Your task to perform on an android device: Search for macbook on ebay, select the first entry, add it to the cart, then select checkout. Image 0: 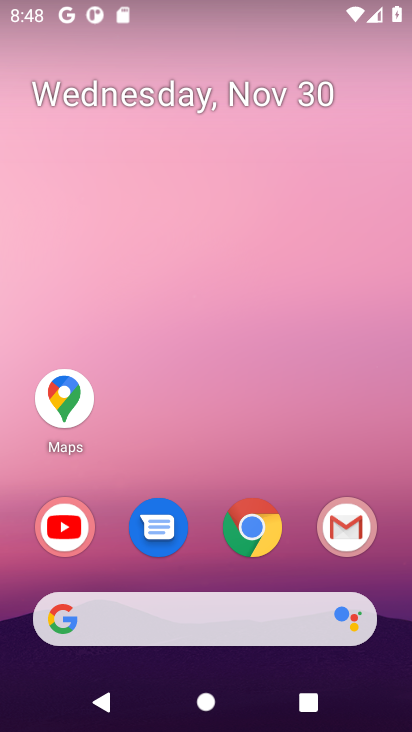
Step 0: click (246, 527)
Your task to perform on an android device: Search for macbook on ebay, select the first entry, add it to the cart, then select checkout. Image 1: 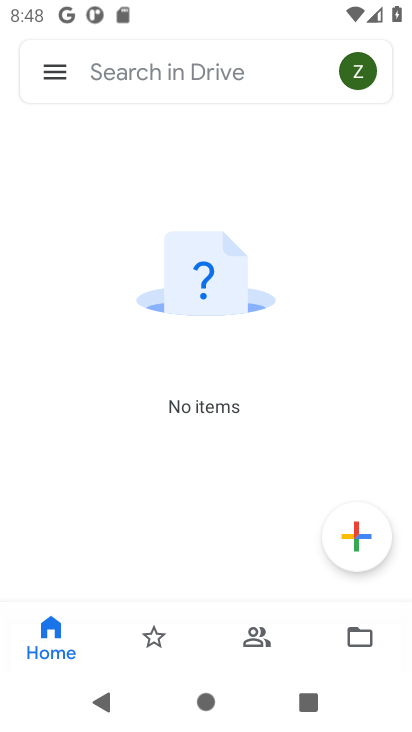
Step 1: press home button
Your task to perform on an android device: Search for macbook on ebay, select the first entry, add it to the cart, then select checkout. Image 2: 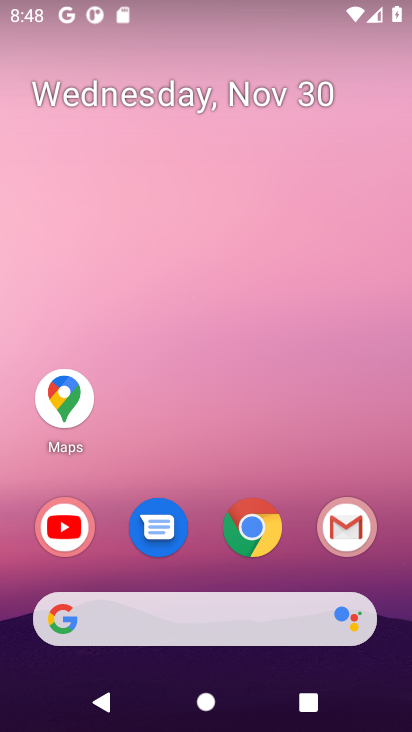
Step 2: click (255, 522)
Your task to perform on an android device: Search for macbook on ebay, select the first entry, add it to the cart, then select checkout. Image 3: 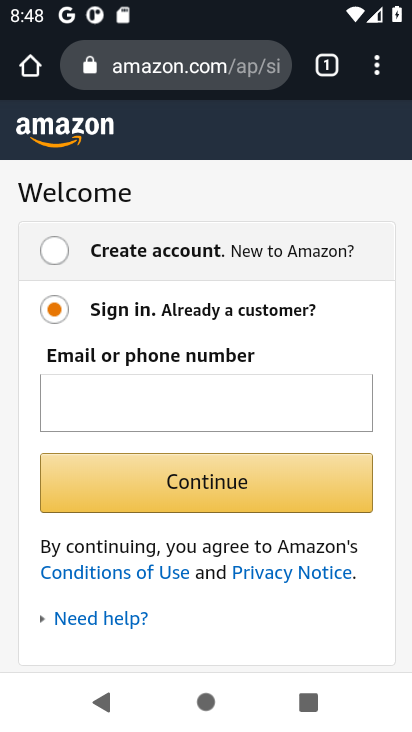
Step 3: click (213, 66)
Your task to perform on an android device: Search for macbook on ebay, select the first entry, add it to the cart, then select checkout. Image 4: 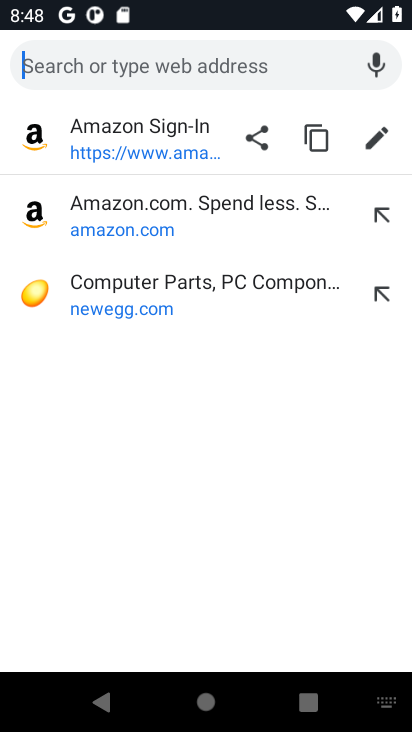
Step 4: type "ebay"
Your task to perform on an android device: Search for macbook on ebay, select the first entry, add it to the cart, then select checkout. Image 5: 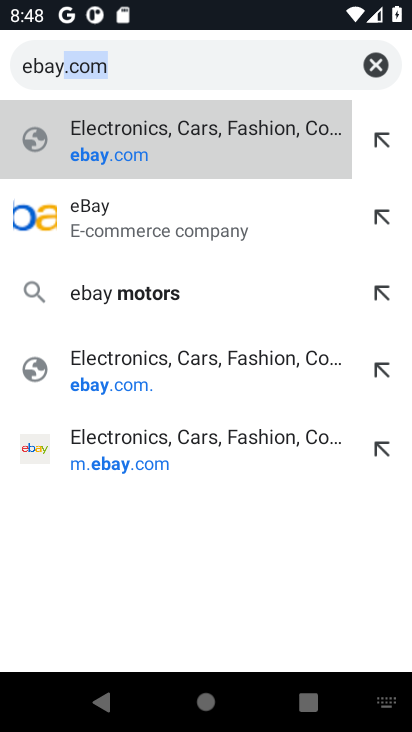
Step 5: press enter
Your task to perform on an android device: Search for macbook on ebay, select the first entry, add it to the cart, then select checkout. Image 6: 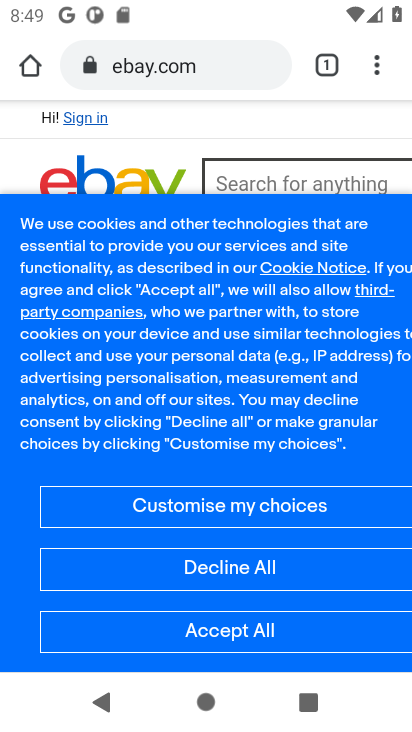
Step 6: click (225, 630)
Your task to perform on an android device: Search for macbook on ebay, select the first entry, add it to the cart, then select checkout. Image 7: 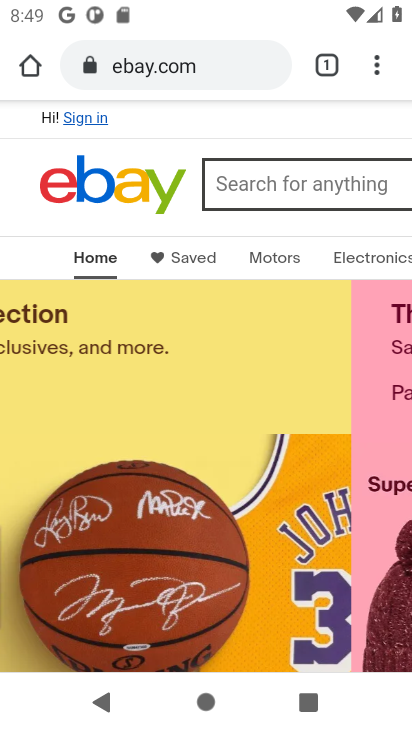
Step 7: click (267, 179)
Your task to perform on an android device: Search for macbook on ebay, select the first entry, add it to the cart, then select checkout. Image 8: 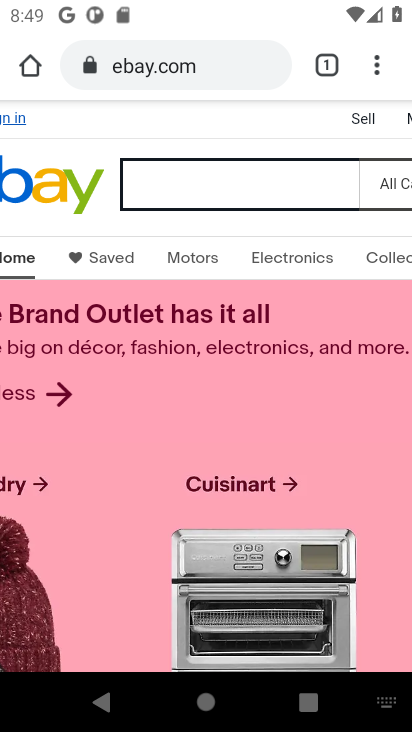
Step 8: type "macbook"
Your task to perform on an android device: Search for macbook on ebay, select the first entry, add it to the cart, then select checkout. Image 9: 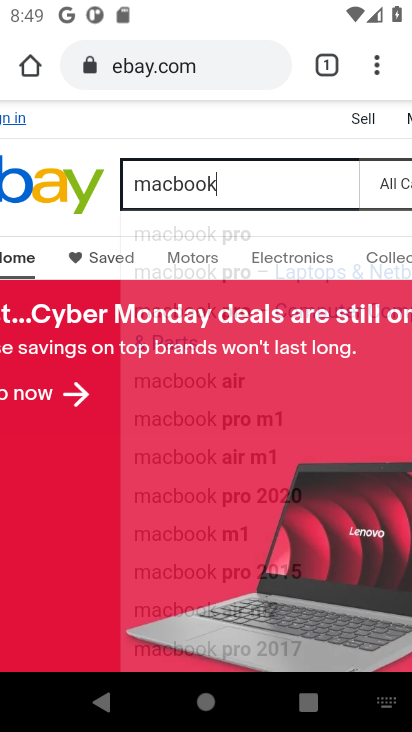
Step 9: press enter
Your task to perform on an android device: Search for macbook on ebay, select the first entry, add it to the cart, then select checkout. Image 10: 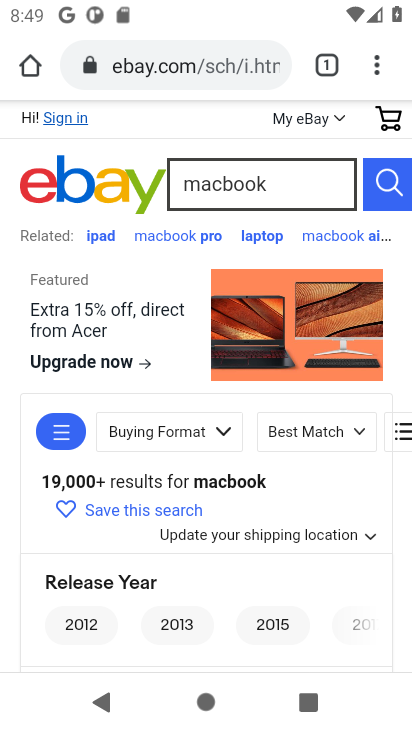
Step 10: drag from (291, 566) to (331, 176)
Your task to perform on an android device: Search for macbook on ebay, select the first entry, add it to the cart, then select checkout. Image 11: 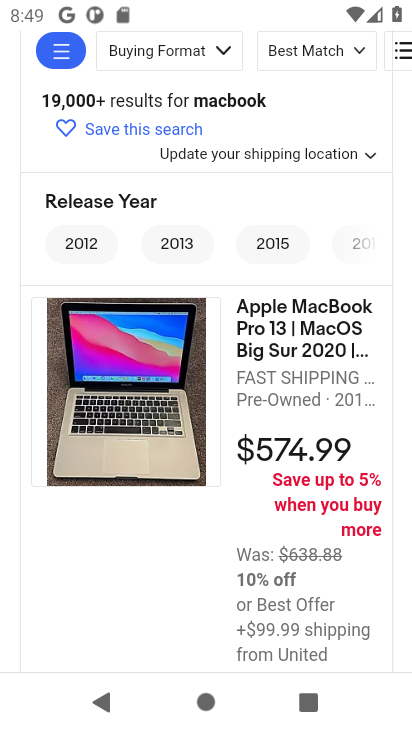
Step 11: click (123, 377)
Your task to perform on an android device: Search for macbook on ebay, select the first entry, add it to the cart, then select checkout. Image 12: 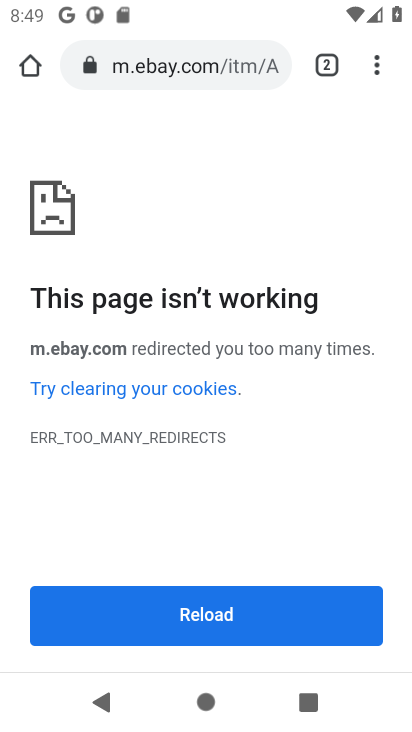
Step 12: task complete